Your task to perform on an android device: find photos in the google photos app Image 0: 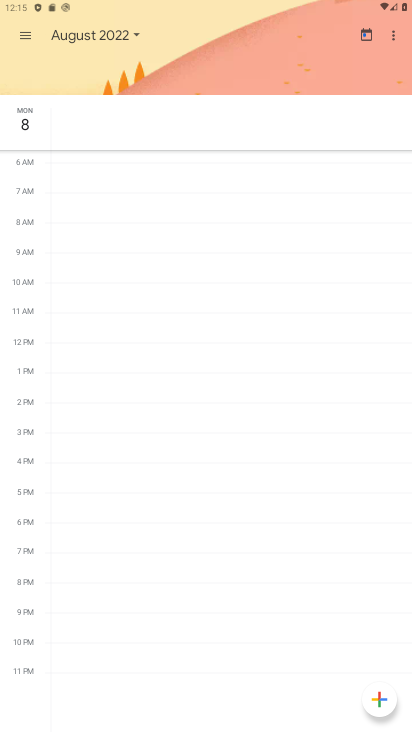
Step 0: press home button
Your task to perform on an android device: find photos in the google photos app Image 1: 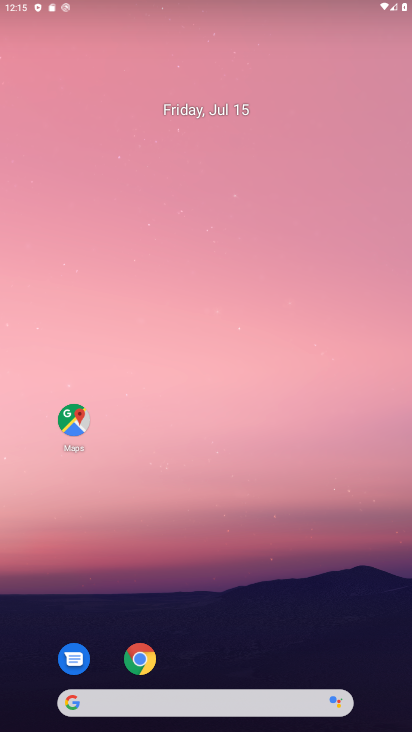
Step 1: drag from (211, 633) to (212, 199)
Your task to perform on an android device: find photos in the google photos app Image 2: 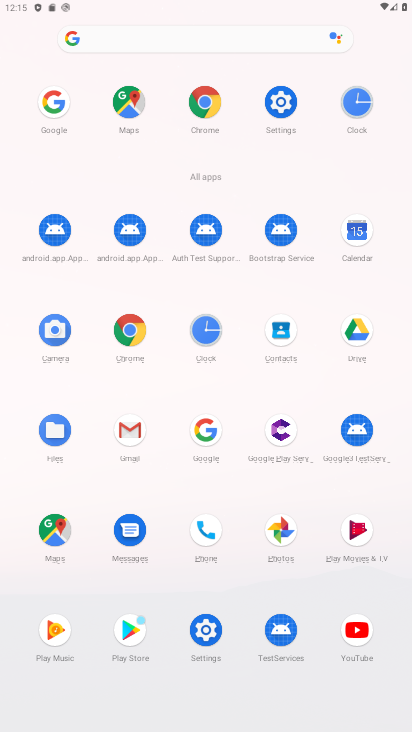
Step 2: click (277, 527)
Your task to perform on an android device: find photos in the google photos app Image 3: 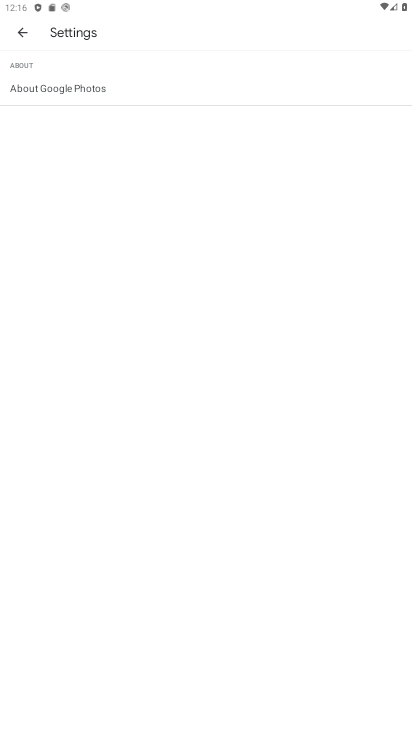
Step 3: click (20, 30)
Your task to perform on an android device: find photos in the google photos app Image 4: 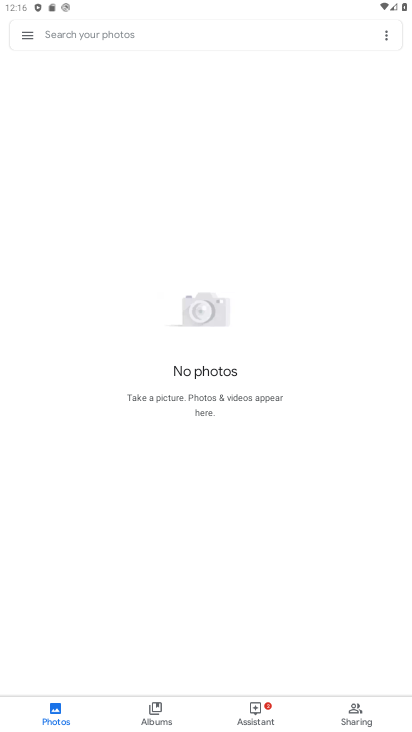
Step 4: click (155, 37)
Your task to perform on an android device: find photos in the google photos app Image 5: 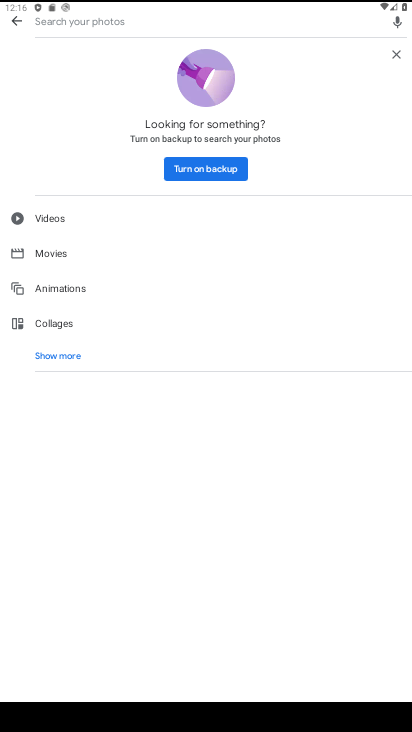
Step 5: type "aa"
Your task to perform on an android device: find photos in the google photos app Image 6: 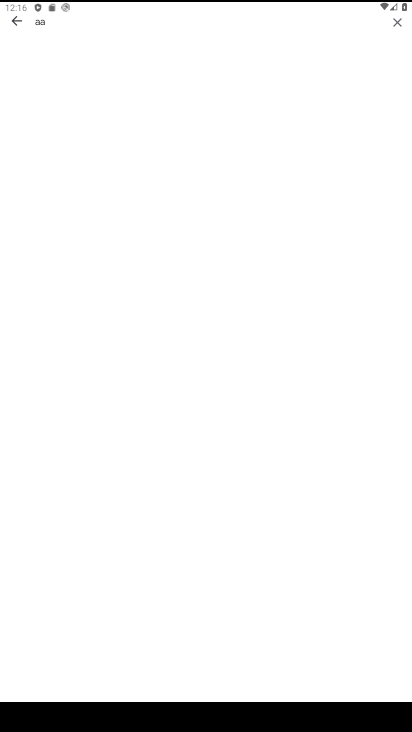
Step 6: task complete